Your task to perform on an android device: toggle wifi Image 0: 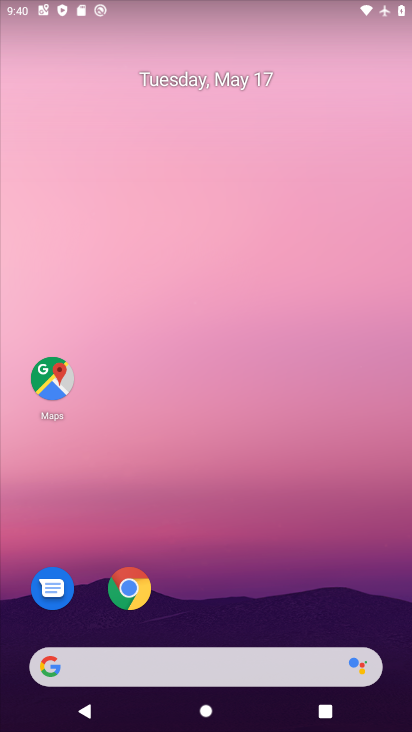
Step 0: drag from (219, 638) to (132, 26)
Your task to perform on an android device: toggle wifi Image 1: 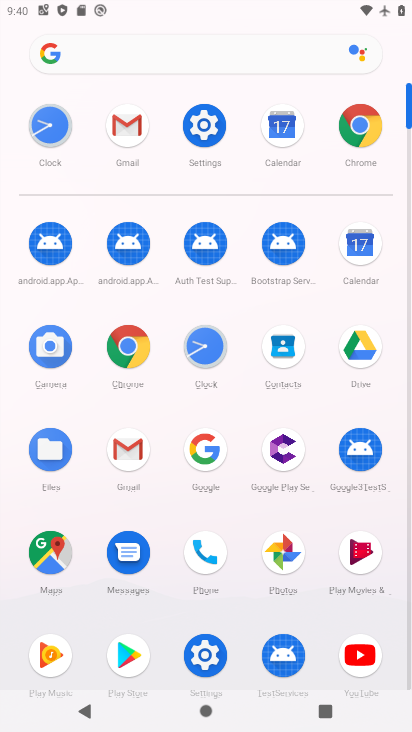
Step 1: click (212, 128)
Your task to perform on an android device: toggle wifi Image 2: 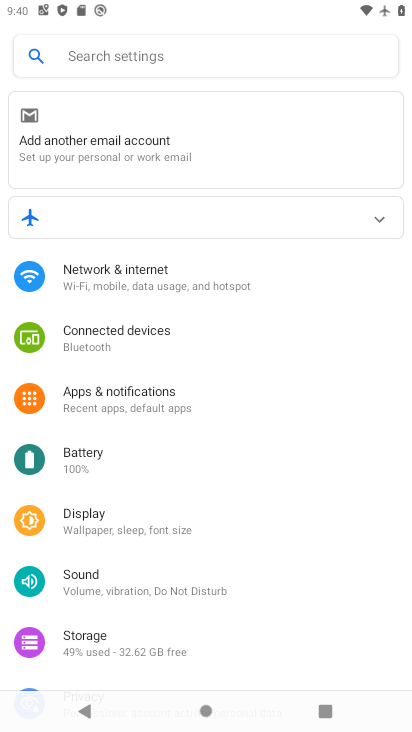
Step 2: drag from (131, 183) to (129, 91)
Your task to perform on an android device: toggle wifi Image 3: 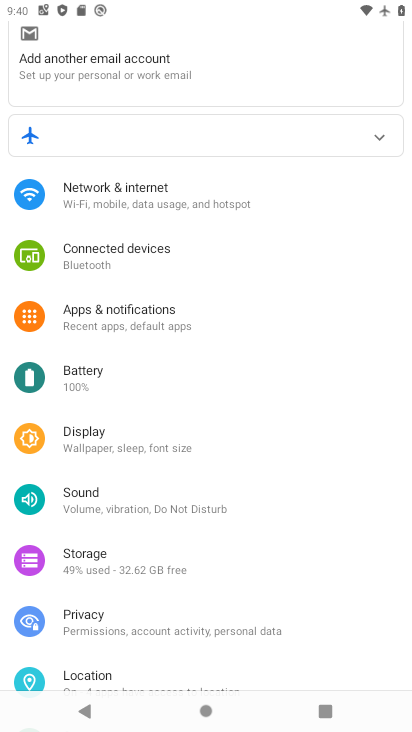
Step 3: click (116, 192)
Your task to perform on an android device: toggle wifi Image 4: 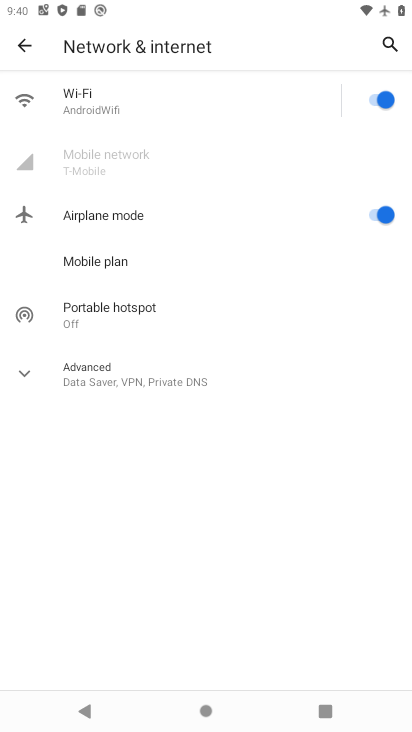
Step 4: click (135, 107)
Your task to perform on an android device: toggle wifi Image 5: 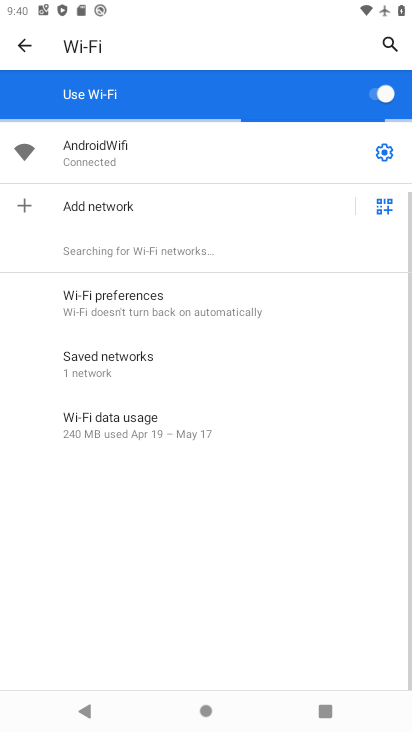
Step 5: click (367, 99)
Your task to perform on an android device: toggle wifi Image 6: 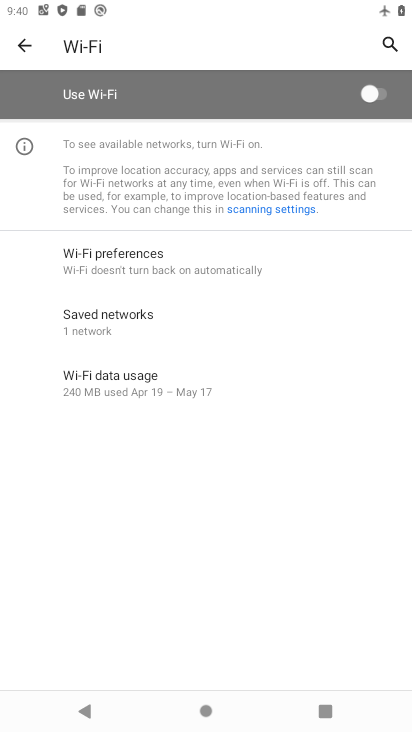
Step 6: task complete